Your task to perform on an android device: Open Google Chrome Image 0: 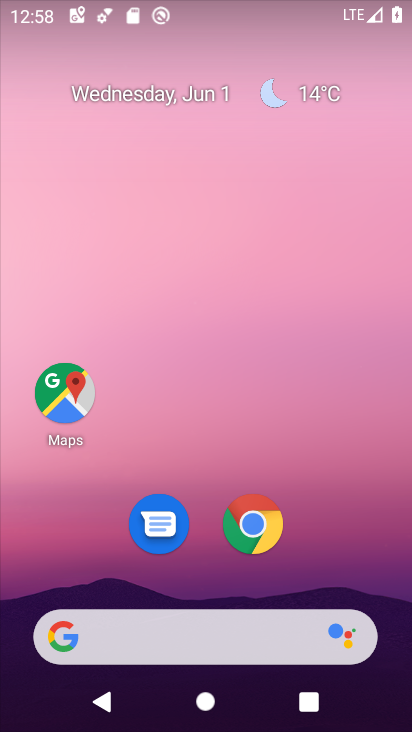
Step 0: click (251, 515)
Your task to perform on an android device: Open Google Chrome Image 1: 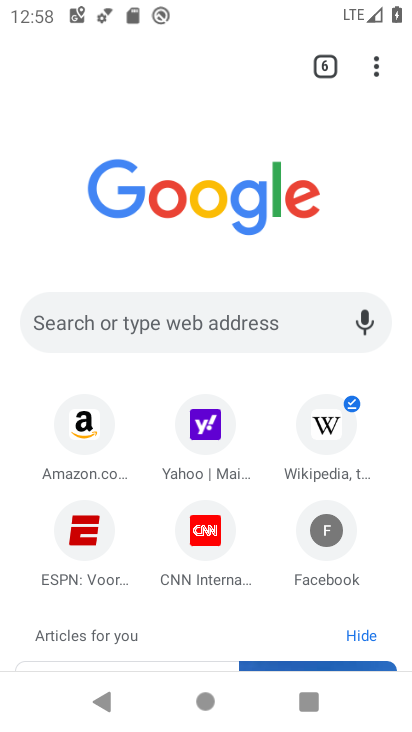
Step 1: task complete